Your task to perform on an android device: Add razer naga to the cart on newegg, then select checkout. Image 0: 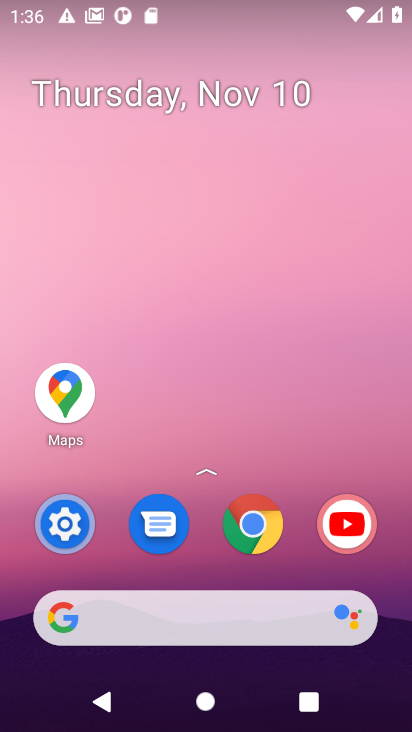
Step 0: click (261, 537)
Your task to perform on an android device: Add razer naga to the cart on newegg, then select checkout. Image 1: 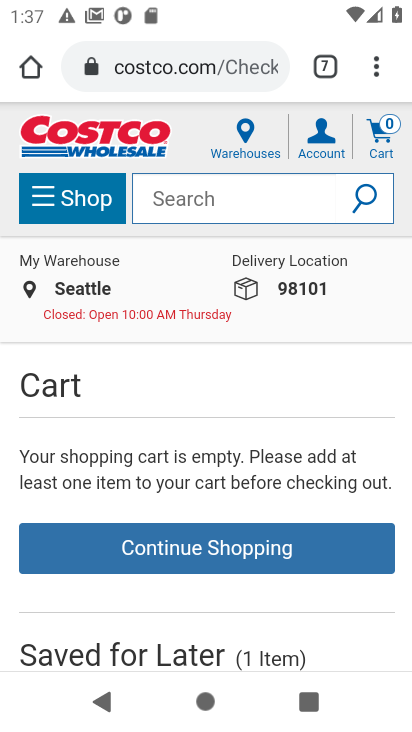
Step 1: click (334, 69)
Your task to perform on an android device: Add razer naga to the cart on newegg, then select checkout. Image 2: 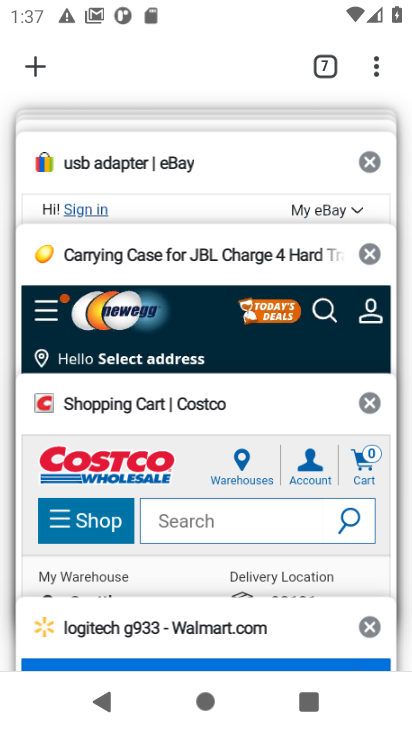
Step 2: click (162, 308)
Your task to perform on an android device: Add razer naga to the cart on newegg, then select checkout. Image 3: 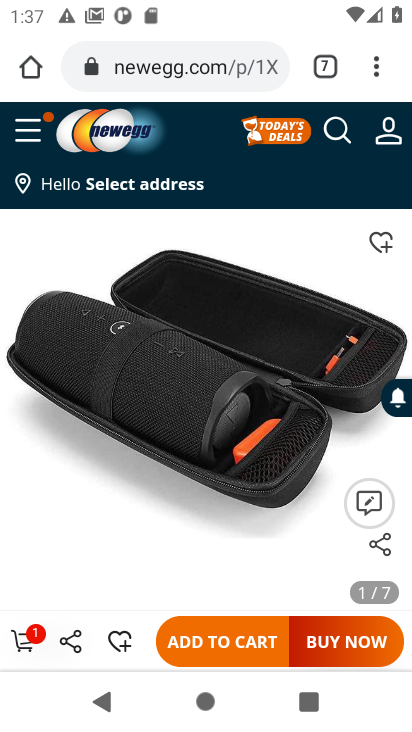
Step 3: click (340, 122)
Your task to perform on an android device: Add razer naga to the cart on newegg, then select checkout. Image 4: 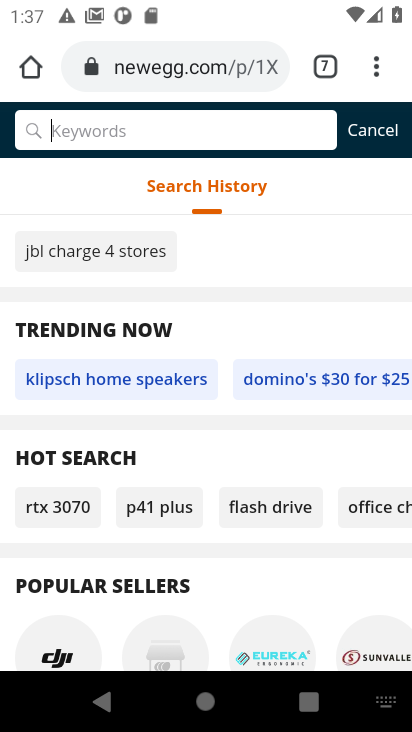
Step 4: type "razer naga"
Your task to perform on an android device: Add razer naga to the cart on newegg, then select checkout. Image 5: 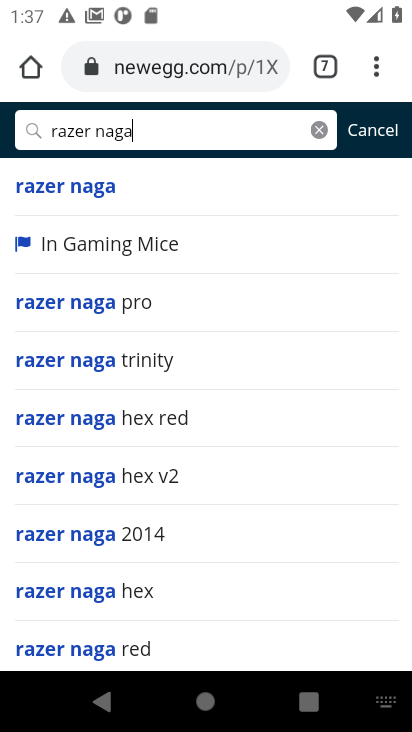
Step 5: click (86, 188)
Your task to perform on an android device: Add razer naga to the cart on newegg, then select checkout. Image 6: 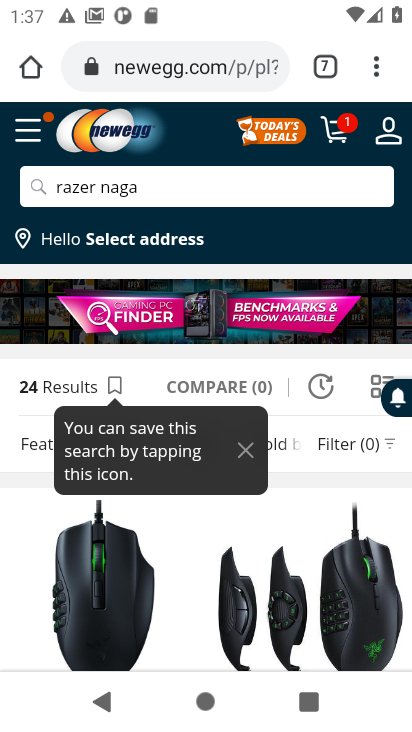
Step 6: drag from (164, 542) to (170, 356)
Your task to perform on an android device: Add razer naga to the cart on newegg, then select checkout. Image 7: 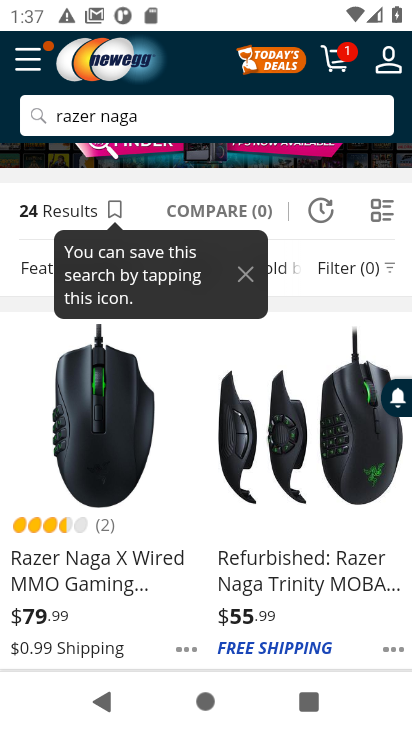
Step 7: click (79, 559)
Your task to perform on an android device: Add razer naga to the cart on newegg, then select checkout. Image 8: 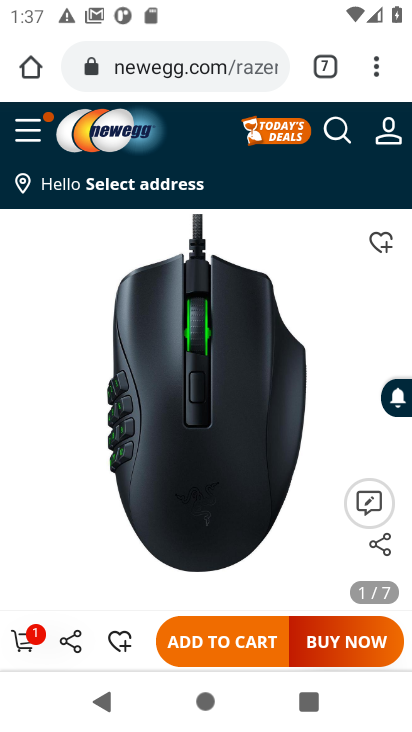
Step 8: click (201, 635)
Your task to perform on an android device: Add razer naga to the cart on newegg, then select checkout. Image 9: 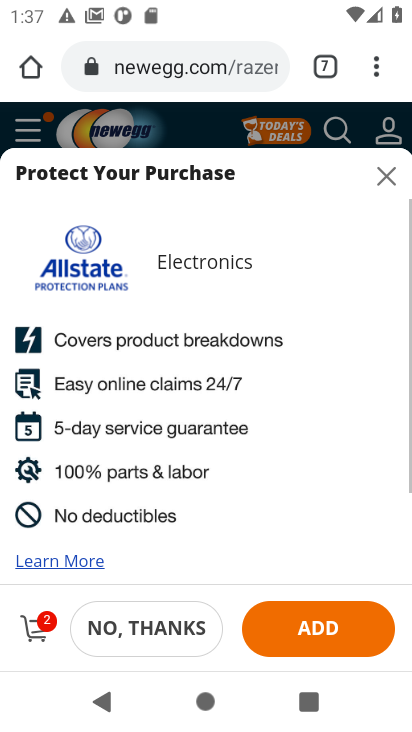
Step 9: click (41, 628)
Your task to perform on an android device: Add razer naga to the cart on newegg, then select checkout. Image 10: 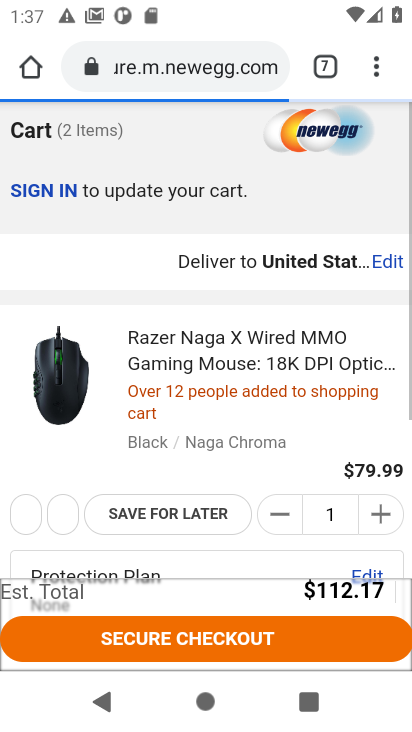
Step 10: task complete